Your task to perform on an android device: Turn on the flashlight Image 0: 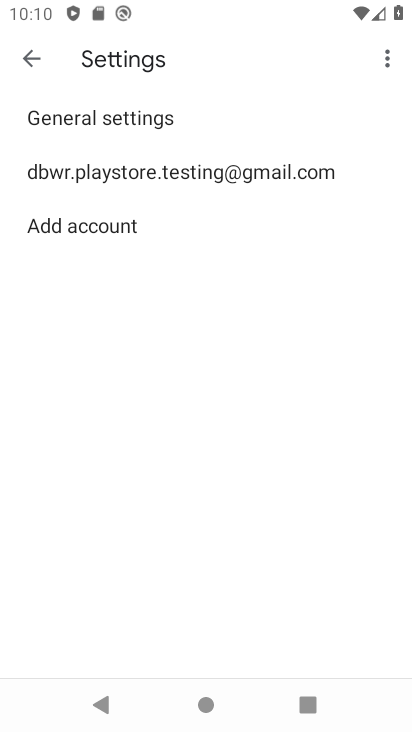
Step 0: press home button
Your task to perform on an android device: Turn on the flashlight Image 1: 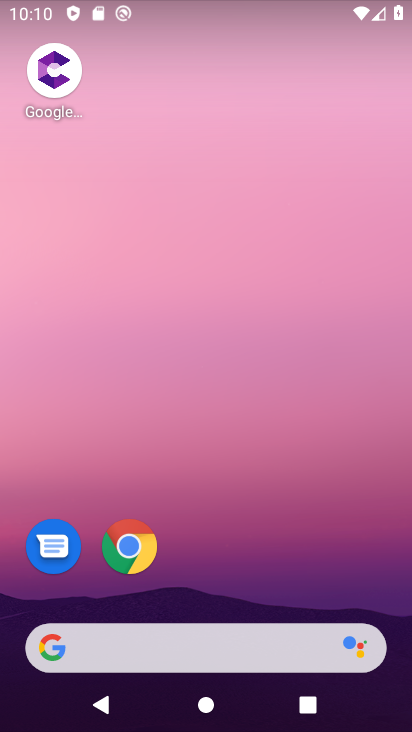
Step 1: task complete